Your task to perform on an android device: change notifications settings Image 0: 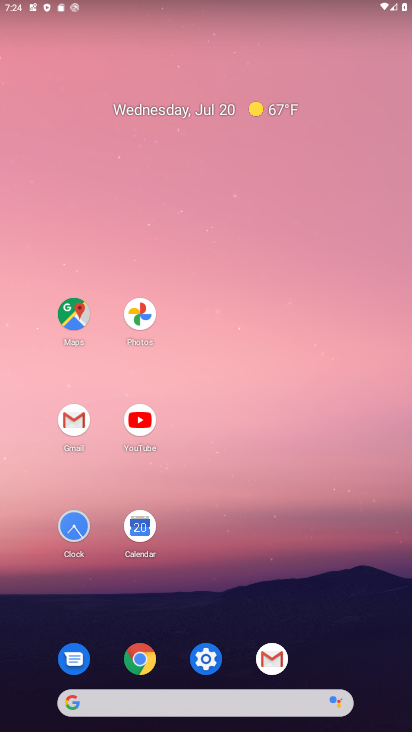
Step 0: click (205, 658)
Your task to perform on an android device: change notifications settings Image 1: 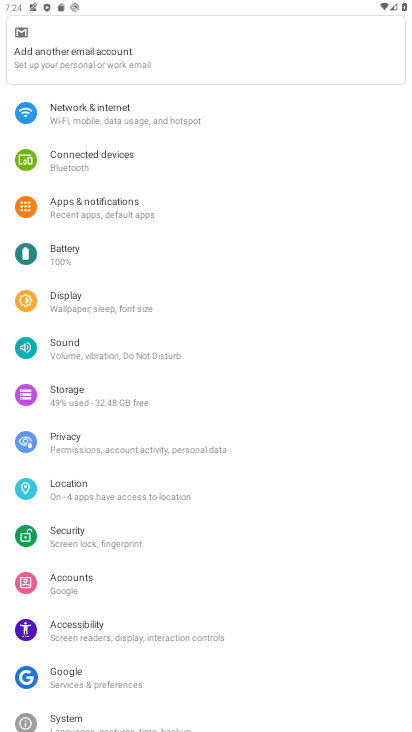
Step 1: click (110, 198)
Your task to perform on an android device: change notifications settings Image 2: 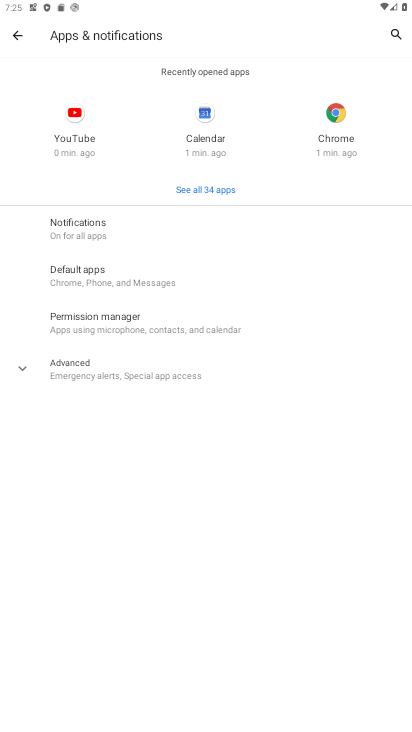
Step 2: click (74, 223)
Your task to perform on an android device: change notifications settings Image 3: 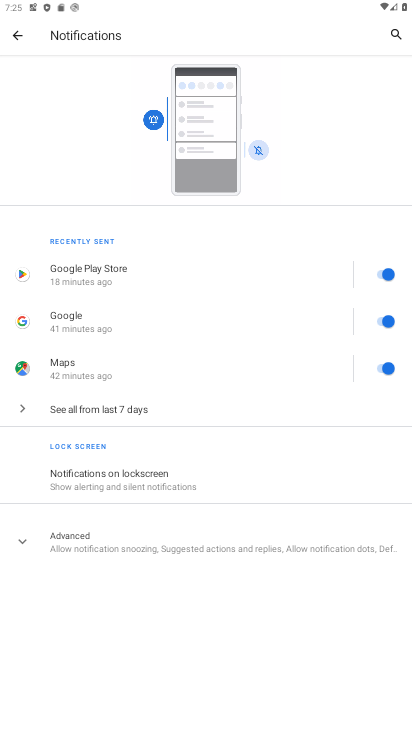
Step 3: click (83, 405)
Your task to perform on an android device: change notifications settings Image 4: 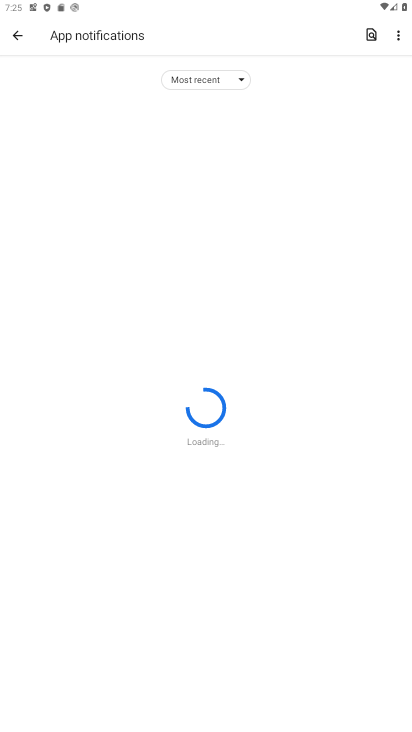
Step 4: click (234, 78)
Your task to perform on an android device: change notifications settings Image 5: 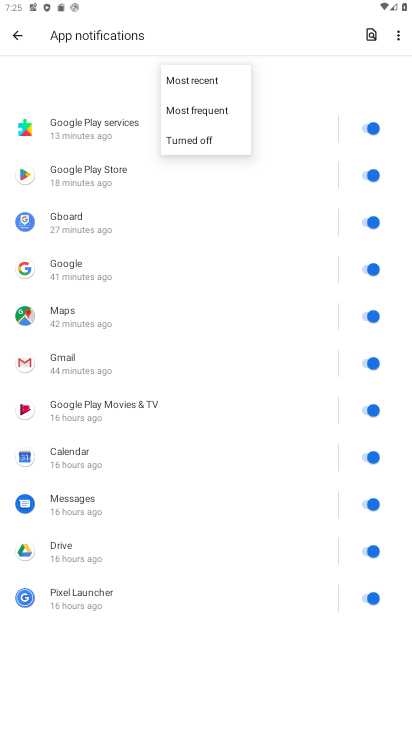
Step 5: click (201, 136)
Your task to perform on an android device: change notifications settings Image 6: 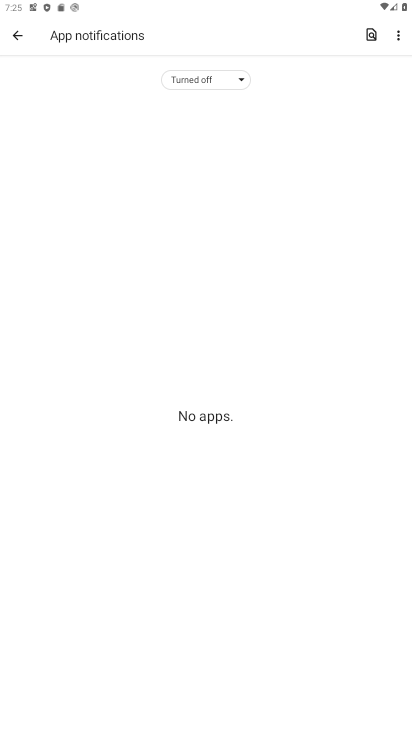
Step 6: task complete